Your task to perform on an android device: find snoozed emails in the gmail app Image 0: 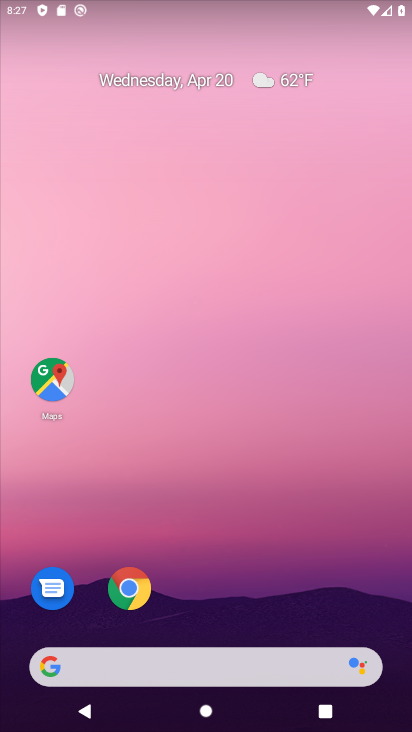
Step 0: drag from (344, 519) to (164, 2)
Your task to perform on an android device: find snoozed emails in the gmail app Image 1: 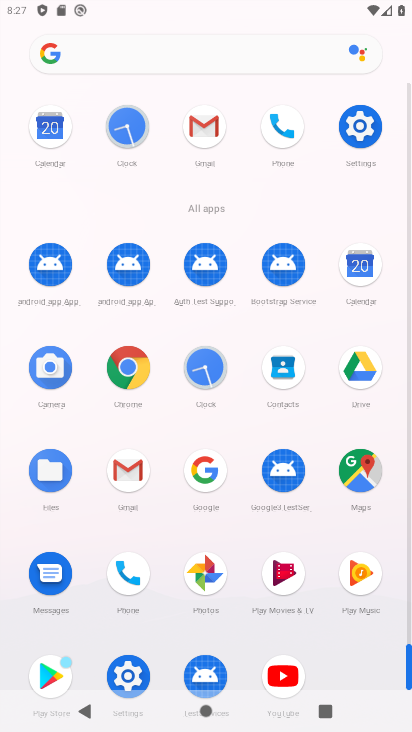
Step 1: click (125, 463)
Your task to perform on an android device: find snoozed emails in the gmail app Image 2: 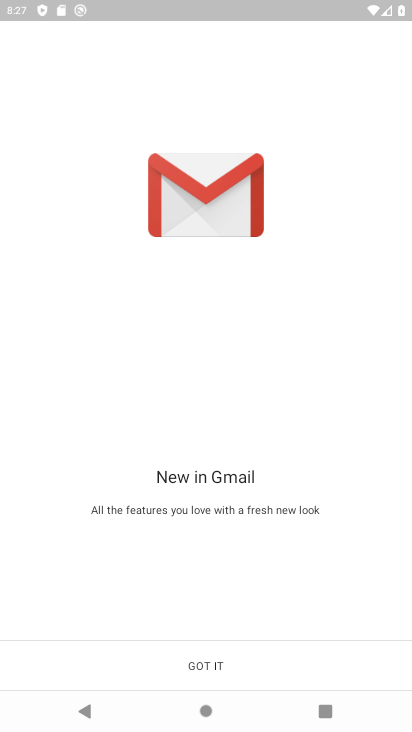
Step 2: click (224, 660)
Your task to perform on an android device: find snoozed emails in the gmail app Image 3: 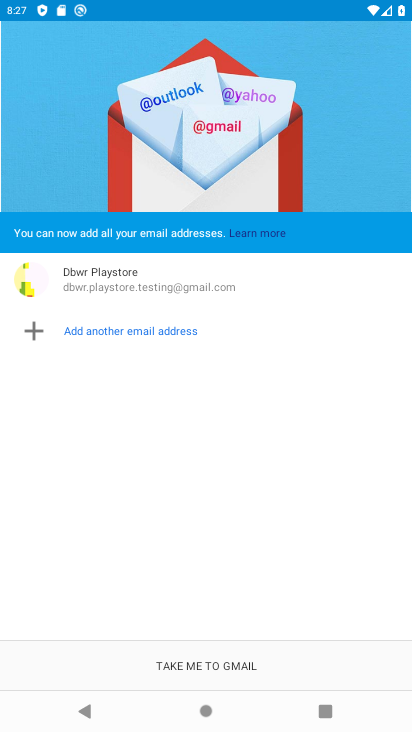
Step 3: click (233, 667)
Your task to perform on an android device: find snoozed emails in the gmail app Image 4: 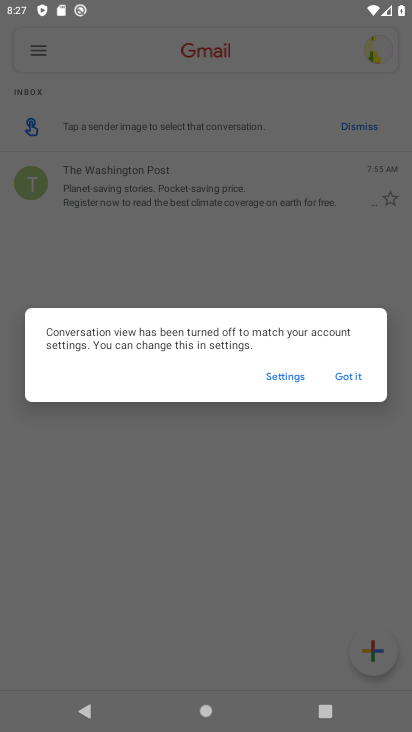
Step 4: click (343, 375)
Your task to perform on an android device: find snoozed emails in the gmail app Image 5: 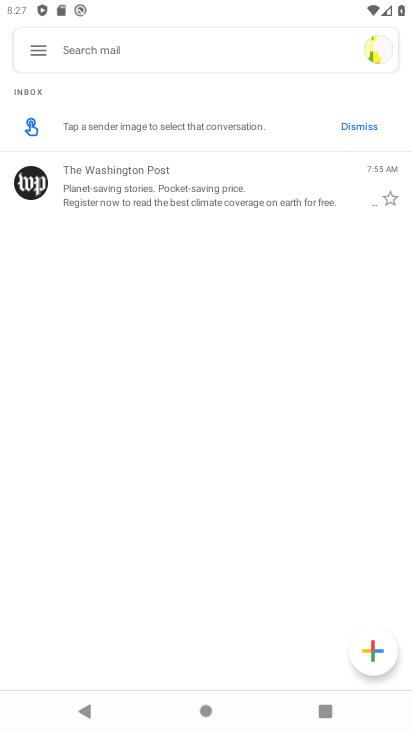
Step 5: click (29, 62)
Your task to perform on an android device: find snoozed emails in the gmail app Image 6: 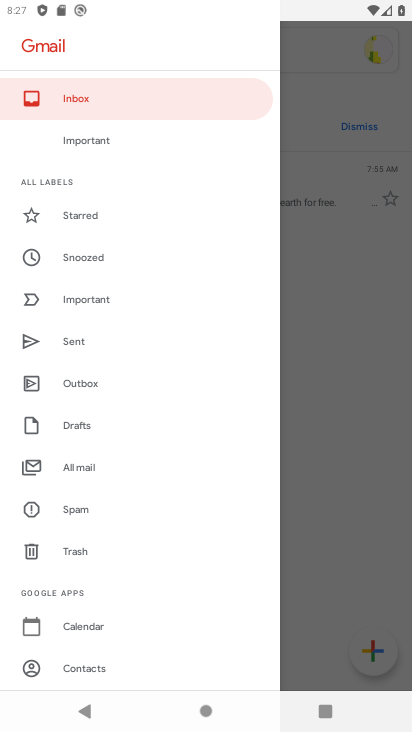
Step 6: click (98, 254)
Your task to perform on an android device: find snoozed emails in the gmail app Image 7: 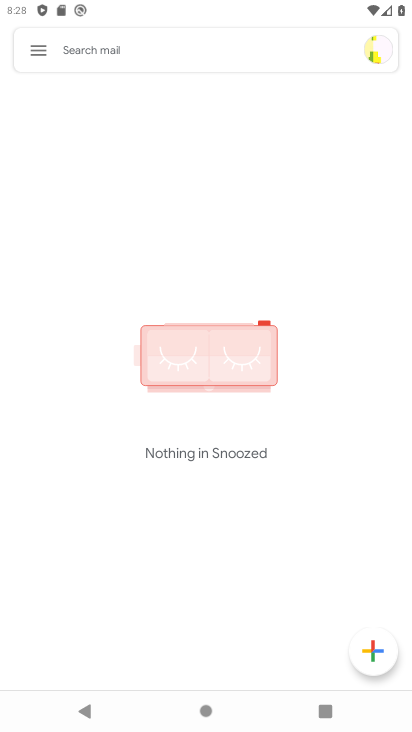
Step 7: task complete